Your task to perform on an android device: see tabs open on other devices in the chrome app Image 0: 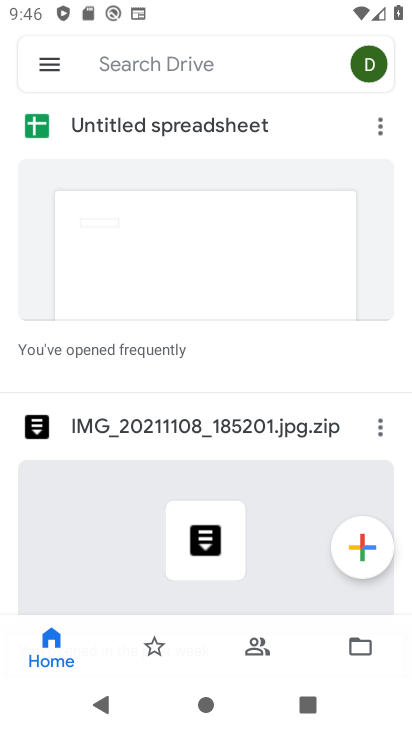
Step 0: press back button
Your task to perform on an android device: see tabs open on other devices in the chrome app Image 1: 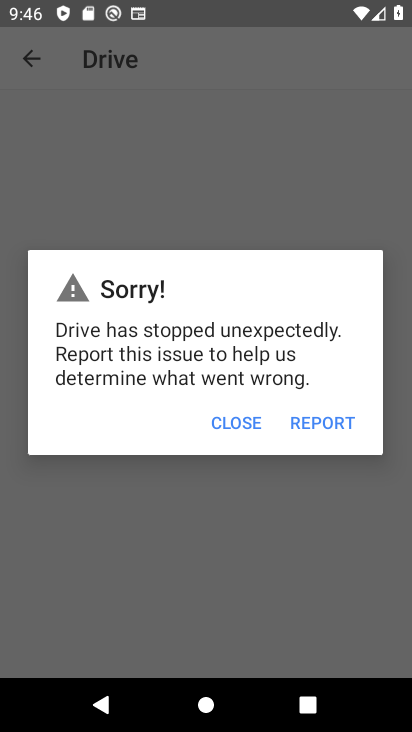
Step 1: press home button
Your task to perform on an android device: see tabs open on other devices in the chrome app Image 2: 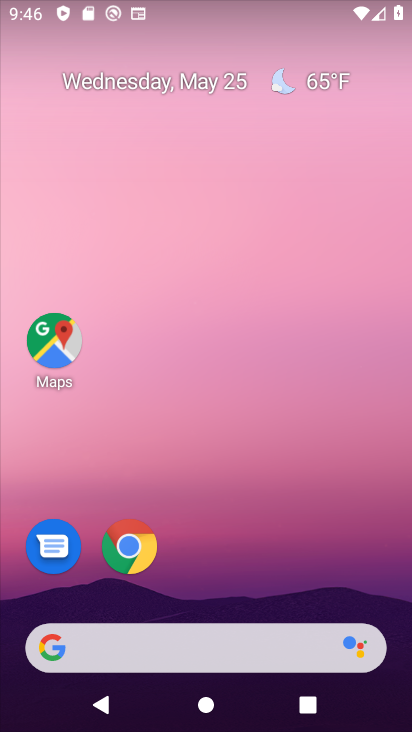
Step 2: drag from (298, 570) to (188, 44)
Your task to perform on an android device: see tabs open on other devices in the chrome app Image 3: 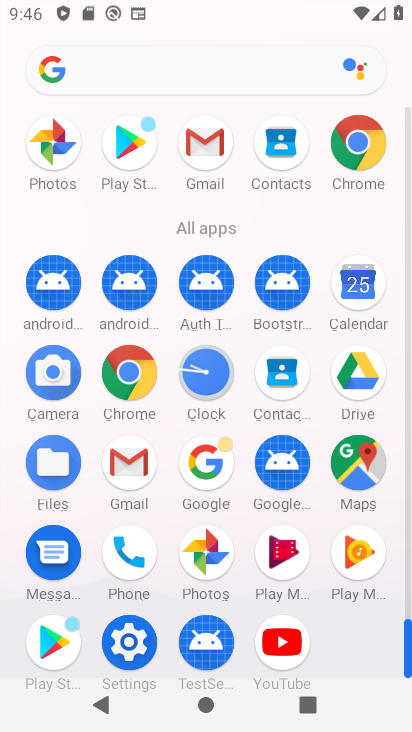
Step 3: drag from (2, 539) to (3, 234)
Your task to perform on an android device: see tabs open on other devices in the chrome app Image 4: 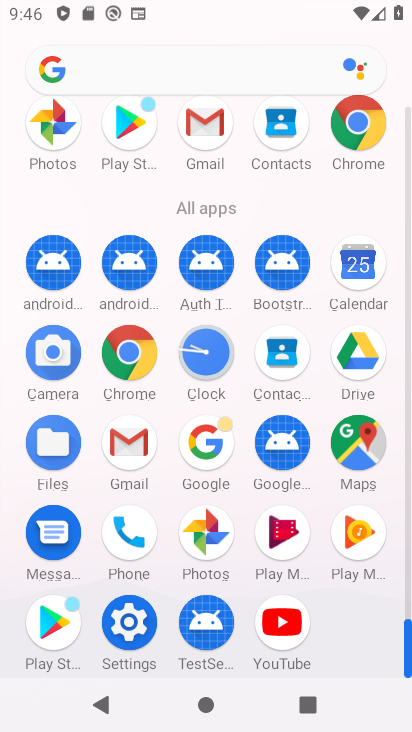
Step 4: click (122, 347)
Your task to perform on an android device: see tabs open on other devices in the chrome app Image 5: 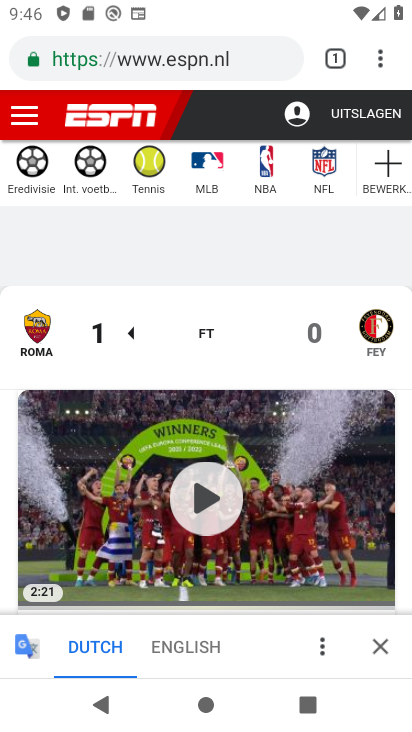
Step 5: task complete